Your task to perform on an android device: Go to wifi settings Image 0: 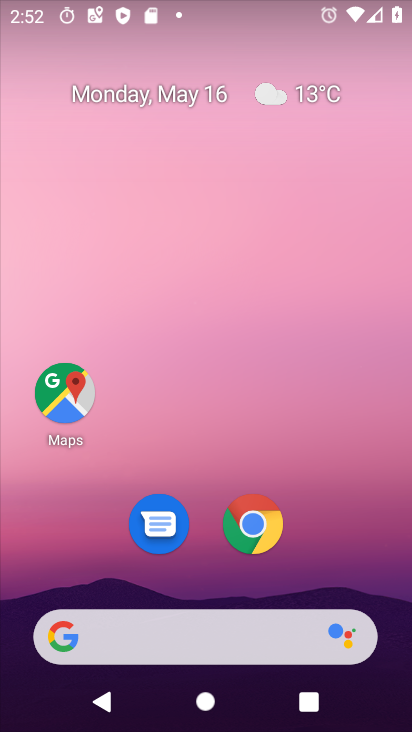
Step 0: drag from (328, 533) to (278, 55)
Your task to perform on an android device: Go to wifi settings Image 1: 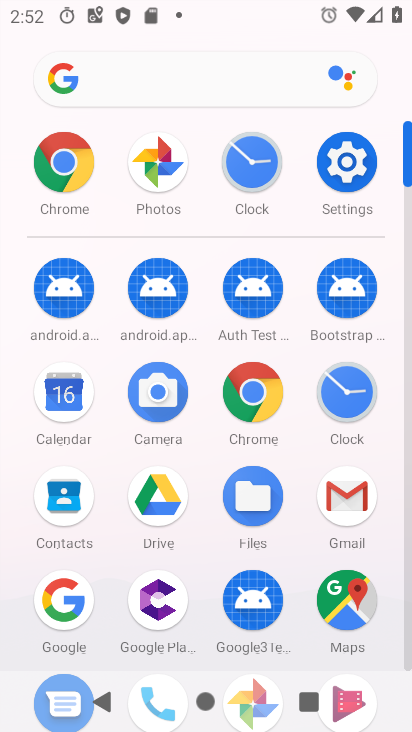
Step 1: click (350, 158)
Your task to perform on an android device: Go to wifi settings Image 2: 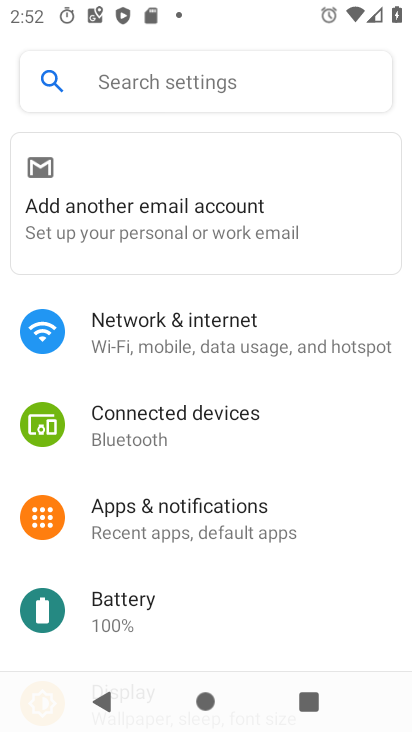
Step 2: click (209, 323)
Your task to perform on an android device: Go to wifi settings Image 3: 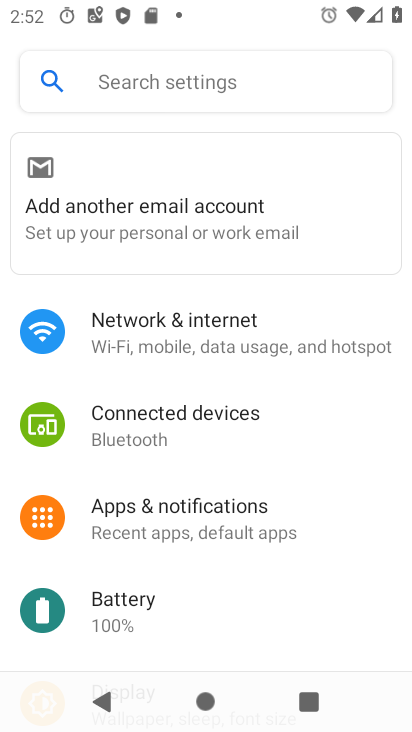
Step 3: click (210, 316)
Your task to perform on an android device: Go to wifi settings Image 4: 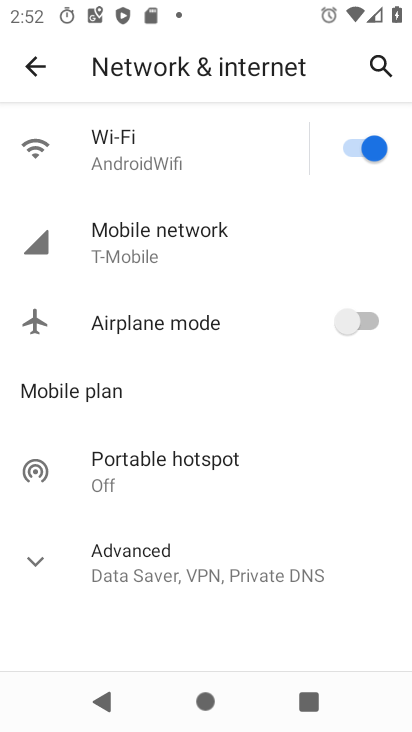
Step 4: click (172, 156)
Your task to perform on an android device: Go to wifi settings Image 5: 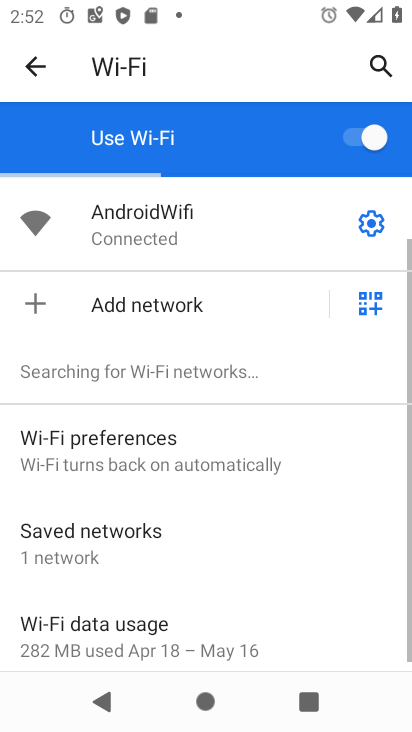
Step 5: task complete